Your task to perform on an android device: Is it going to rain tomorrow? Image 0: 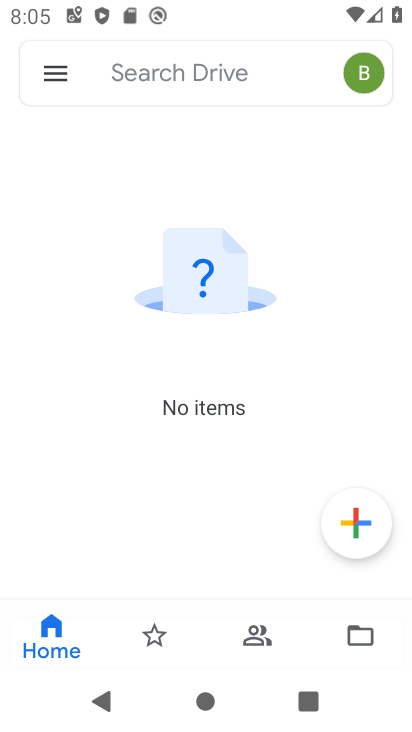
Step 0: press home button
Your task to perform on an android device: Is it going to rain tomorrow? Image 1: 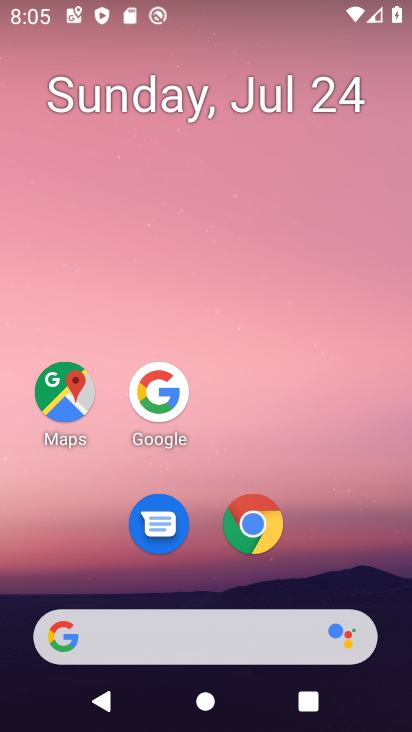
Step 1: click (145, 626)
Your task to perform on an android device: Is it going to rain tomorrow? Image 2: 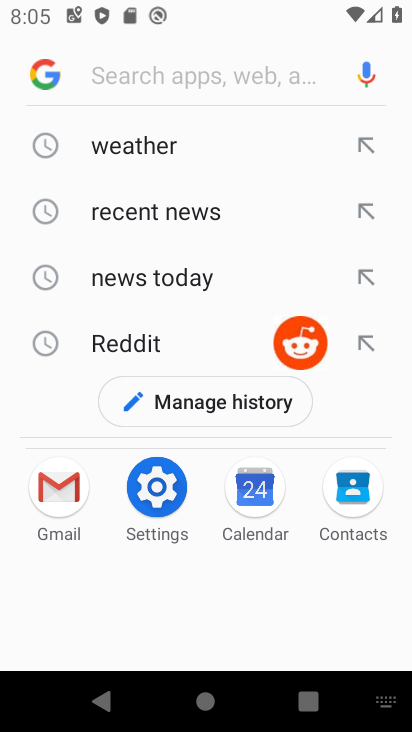
Step 2: click (144, 144)
Your task to perform on an android device: Is it going to rain tomorrow? Image 3: 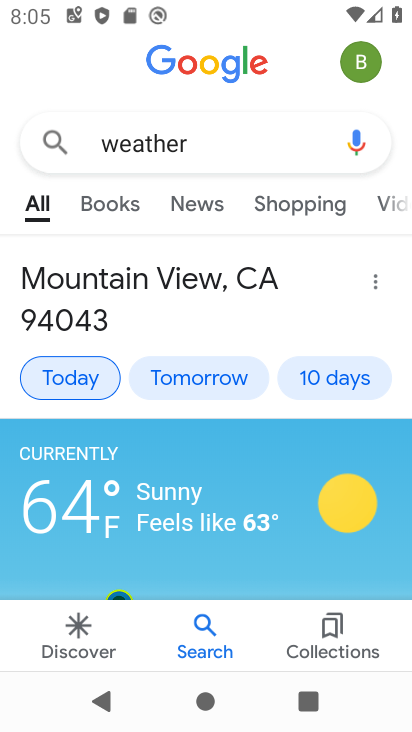
Step 3: click (199, 375)
Your task to perform on an android device: Is it going to rain tomorrow? Image 4: 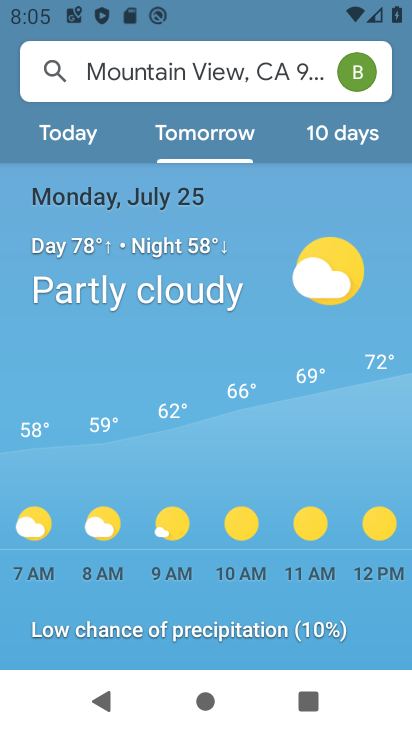
Step 4: task complete